Your task to perform on an android device: clear history in the chrome app Image 0: 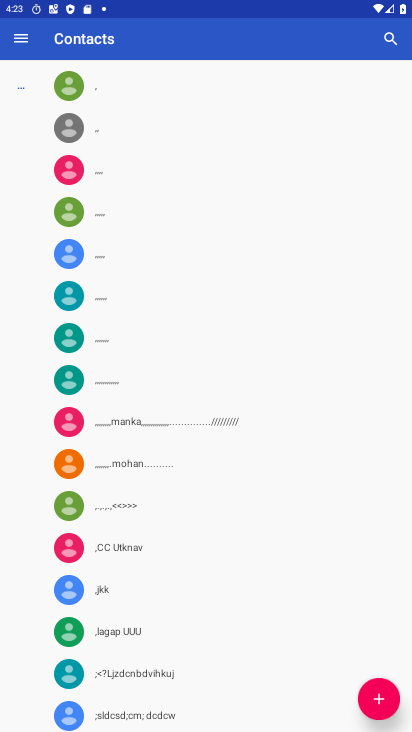
Step 0: press home button
Your task to perform on an android device: clear history in the chrome app Image 1: 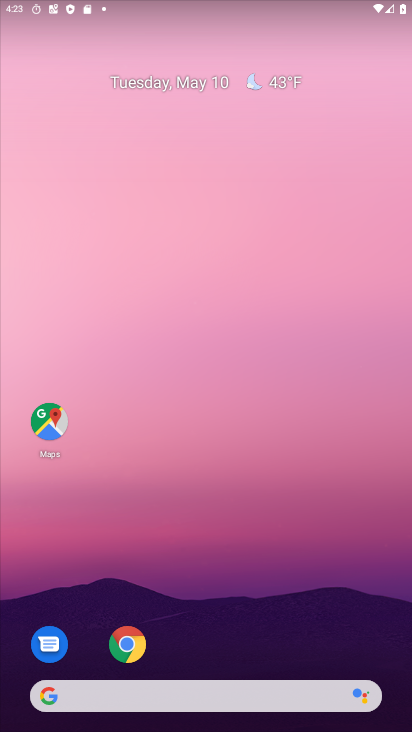
Step 1: click (118, 652)
Your task to perform on an android device: clear history in the chrome app Image 2: 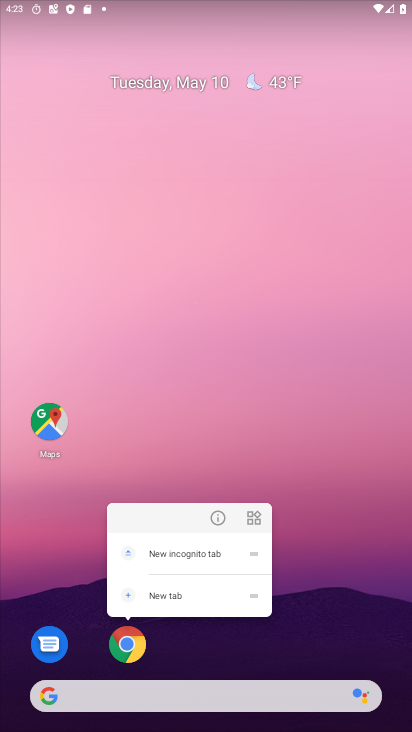
Step 2: click (121, 644)
Your task to perform on an android device: clear history in the chrome app Image 3: 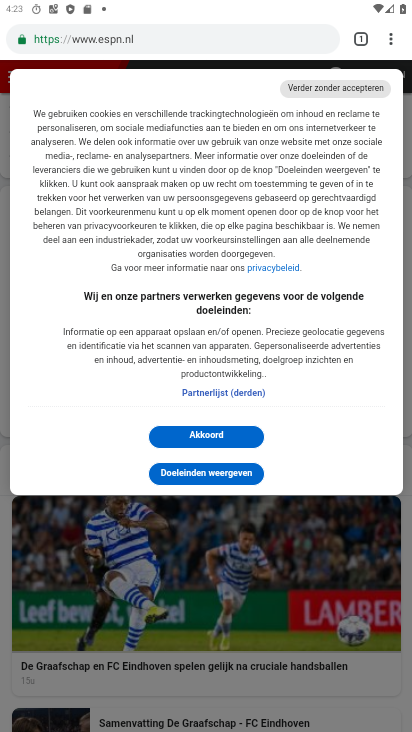
Step 3: click (395, 33)
Your task to perform on an android device: clear history in the chrome app Image 4: 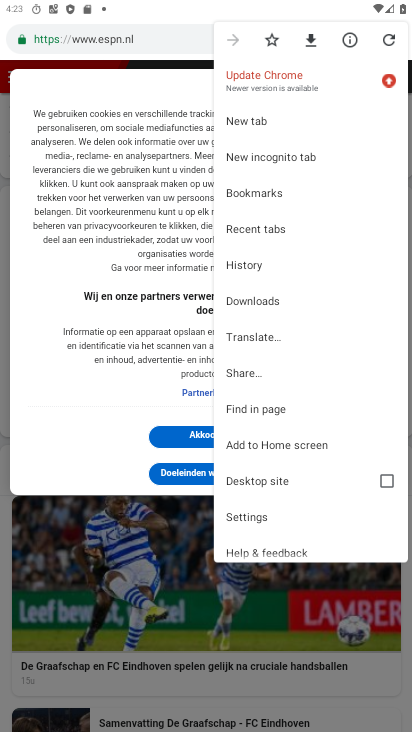
Step 4: click (254, 261)
Your task to perform on an android device: clear history in the chrome app Image 5: 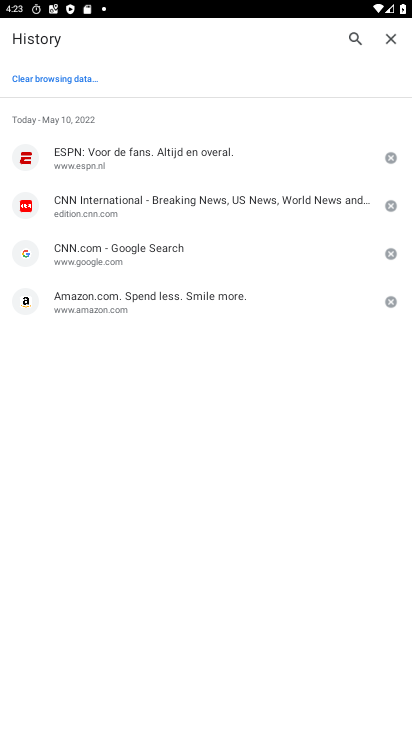
Step 5: click (44, 77)
Your task to perform on an android device: clear history in the chrome app Image 6: 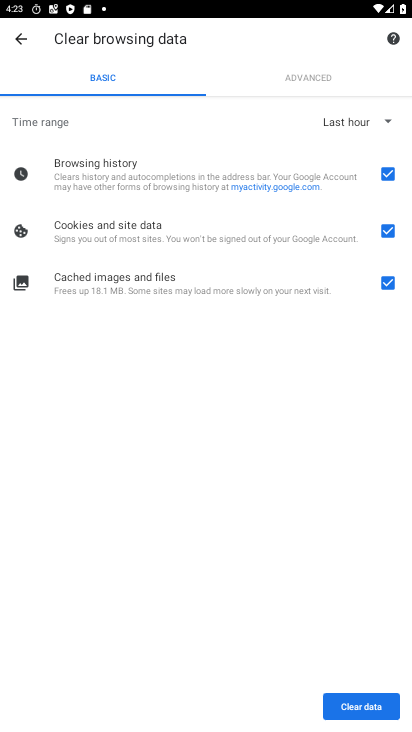
Step 6: click (363, 708)
Your task to perform on an android device: clear history in the chrome app Image 7: 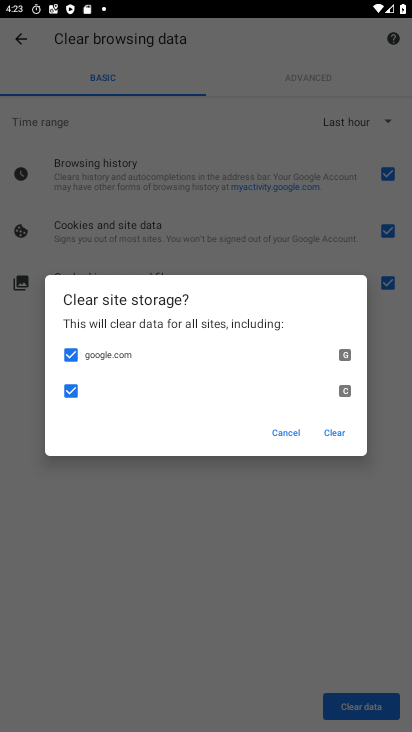
Step 7: click (339, 428)
Your task to perform on an android device: clear history in the chrome app Image 8: 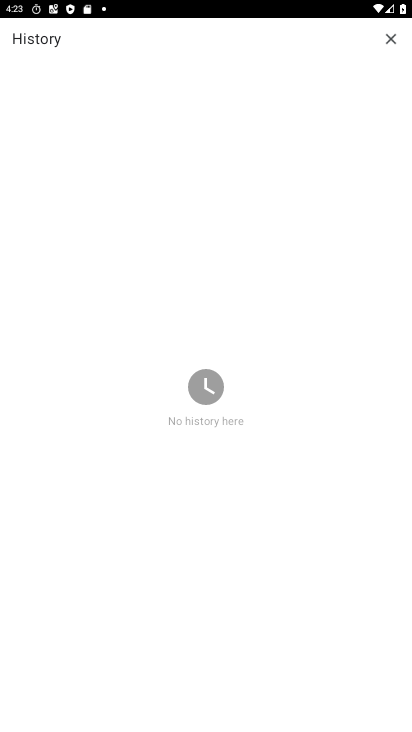
Step 8: task complete